Your task to perform on an android device: Do I have any events today? Image 0: 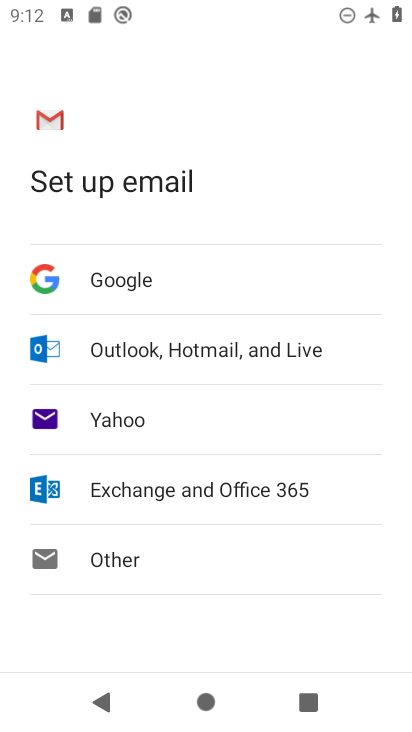
Step 0: press home button
Your task to perform on an android device: Do I have any events today? Image 1: 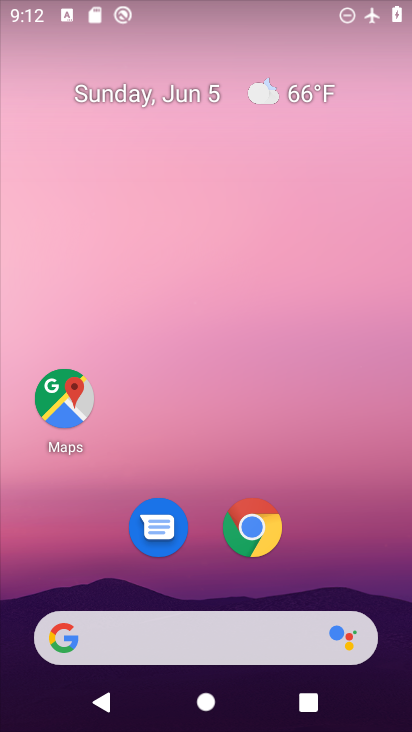
Step 1: click (189, 96)
Your task to perform on an android device: Do I have any events today? Image 2: 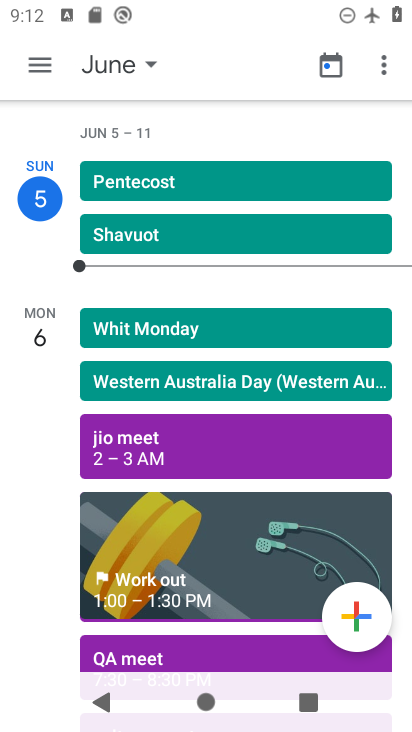
Step 2: task complete